Your task to perform on an android device: Open Android settings Image 0: 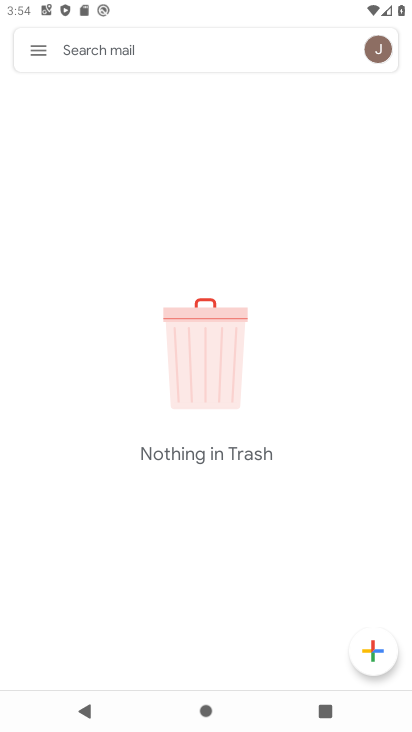
Step 0: press home button
Your task to perform on an android device: Open Android settings Image 1: 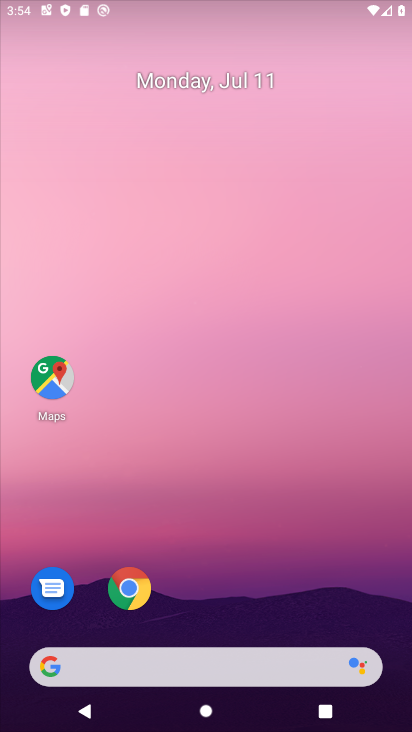
Step 1: drag from (303, 548) to (265, 38)
Your task to perform on an android device: Open Android settings Image 2: 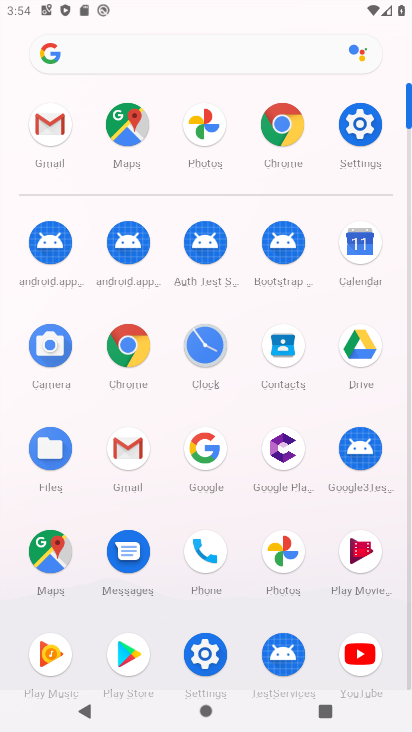
Step 2: click (357, 122)
Your task to perform on an android device: Open Android settings Image 3: 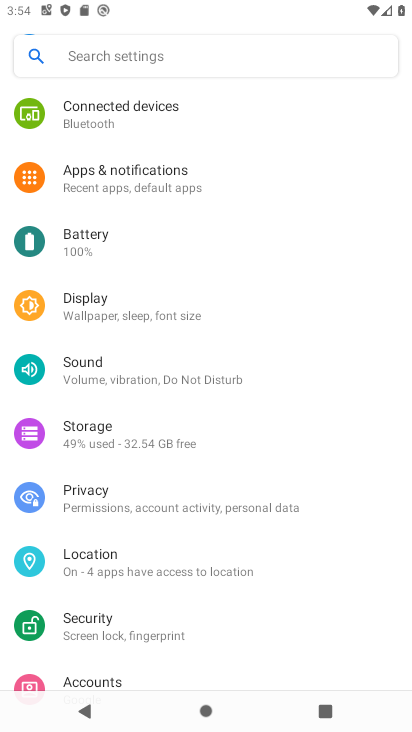
Step 3: task complete